Your task to perform on an android device: find which apps use the phone's location Image 0: 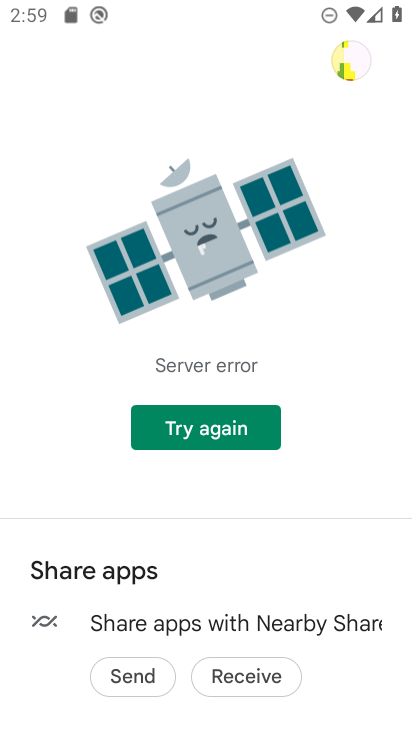
Step 0: press home button
Your task to perform on an android device: find which apps use the phone's location Image 1: 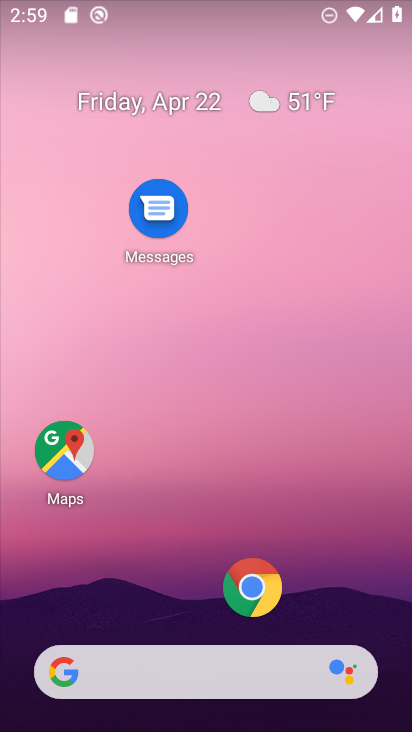
Step 1: drag from (204, 616) to (241, 197)
Your task to perform on an android device: find which apps use the phone's location Image 2: 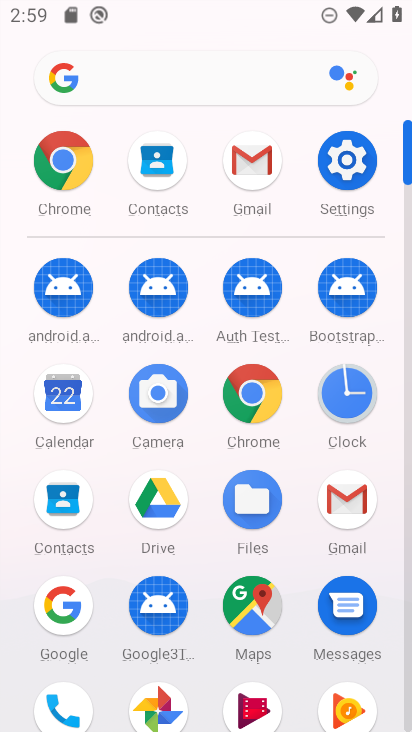
Step 2: click (335, 174)
Your task to perform on an android device: find which apps use the phone's location Image 3: 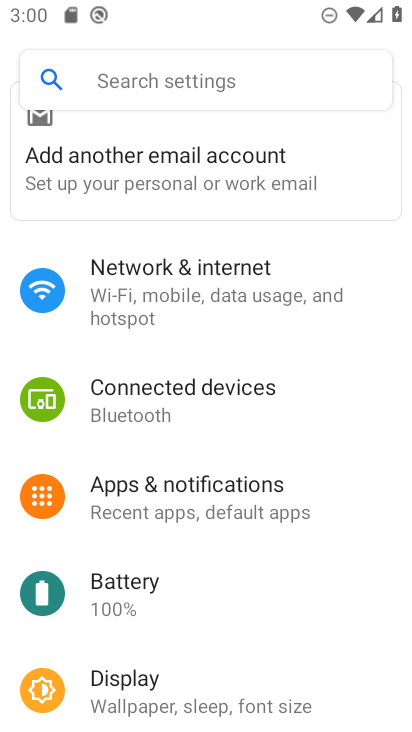
Step 3: drag from (240, 611) to (273, 244)
Your task to perform on an android device: find which apps use the phone's location Image 4: 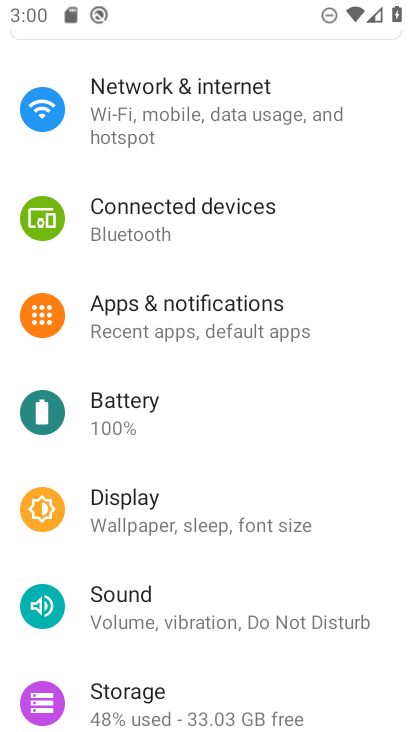
Step 4: drag from (204, 658) to (285, 325)
Your task to perform on an android device: find which apps use the phone's location Image 5: 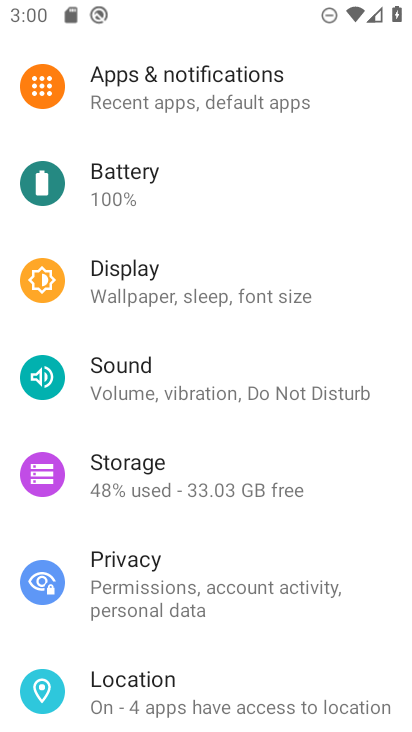
Step 5: click (204, 691)
Your task to perform on an android device: find which apps use the phone's location Image 6: 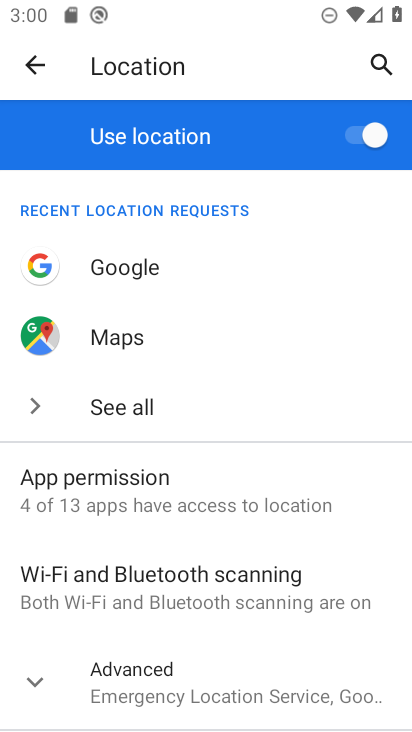
Step 6: click (192, 517)
Your task to perform on an android device: find which apps use the phone's location Image 7: 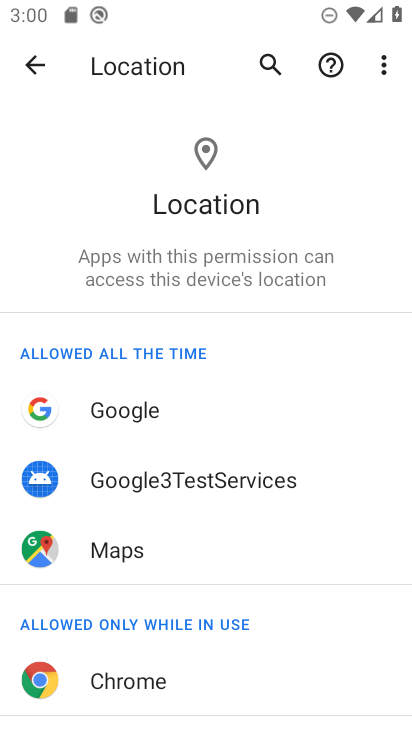
Step 7: task complete